Your task to perform on an android device: change notification settings in the gmail app Image 0: 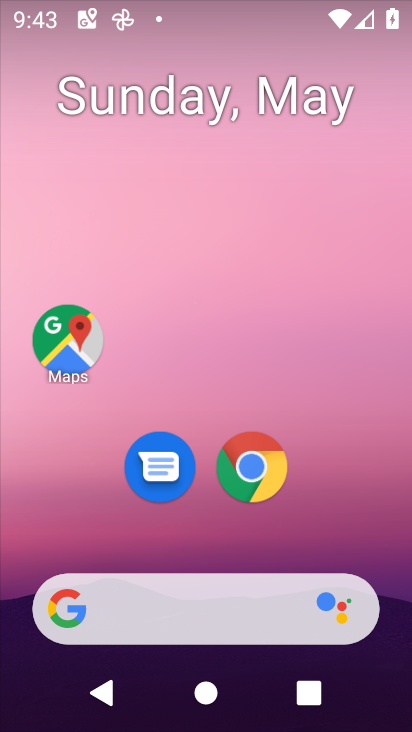
Step 0: drag from (324, 494) to (315, 128)
Your task to perform on an android device: change notification settings in the gmail app Image 1: 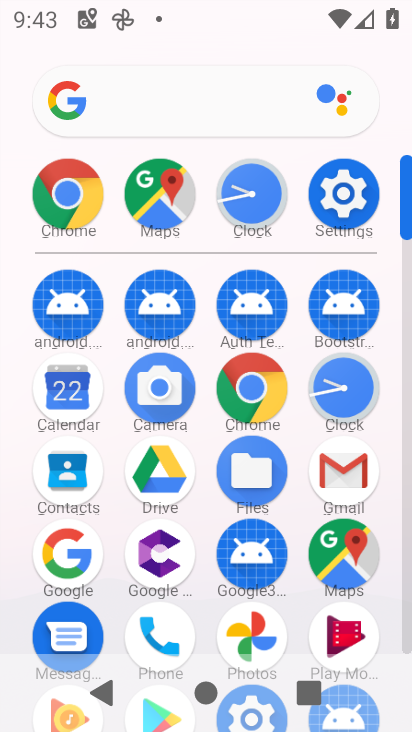
Step 1: click (345, 473)
Your task to perform on an android device: change notification settings in the gmail app Image 2: 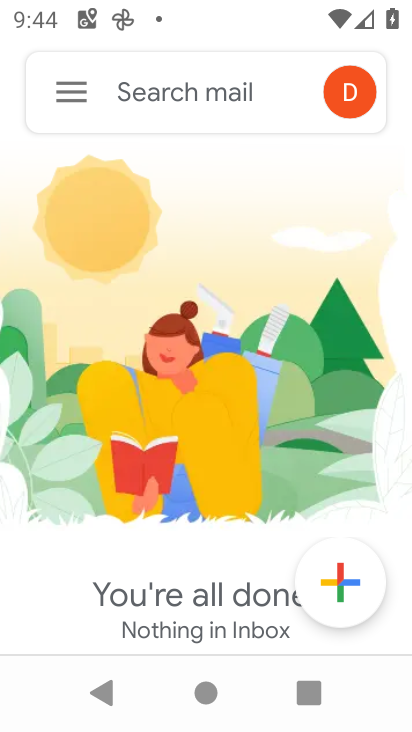
Step 2: click (70, 102)
Your task to perform on an android device: change notification settings in the gmail app Image 3: 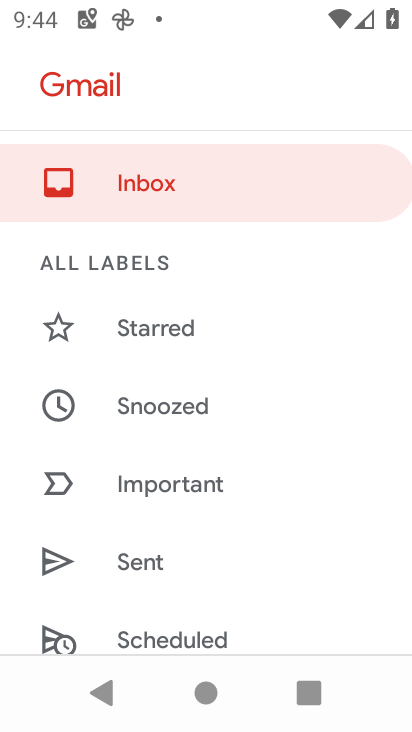
Step 3: drag from (181, 546) to (208, 264)
Your task to perform on an android device: change notification settings in the gmail app Image 4: 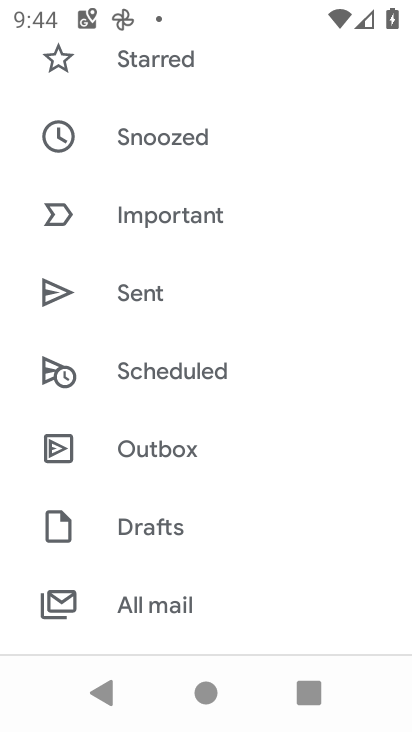
Step 4: drag from (210, 594) to (277, 245)
Your task to perform on an android device: change notification settings in the gmail app Image 5: 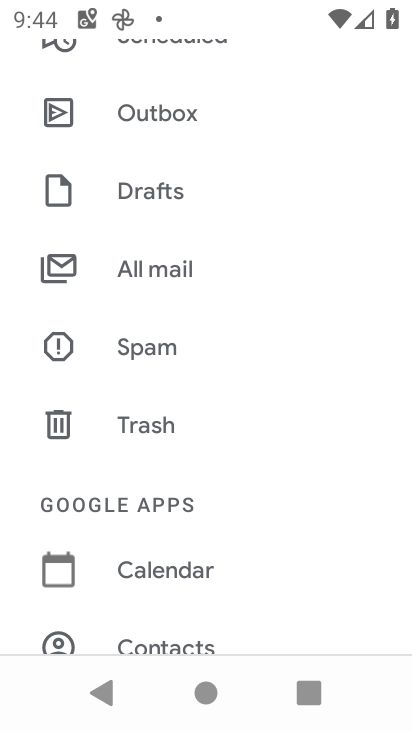
Step 5: drag from (225, 591) to (261, 283)
Your task to perform on an android device: change notification settings in the gmail app Image 6: 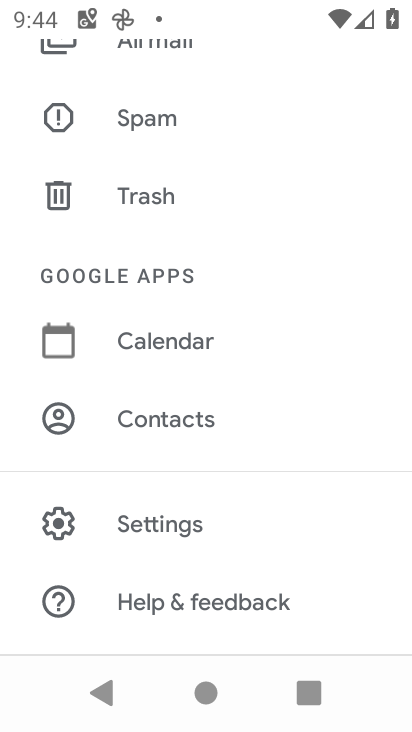
Step 6: click (177, 537)
Your task to perform on an android device: change notification settings in the gmail app Image 7: 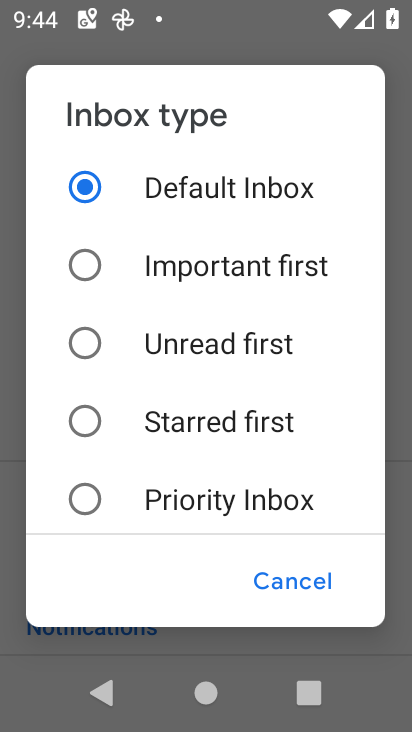
Step 7: click (270, 595)
Your task to perform on an android device: change notification settings in the gmail app Image 8: 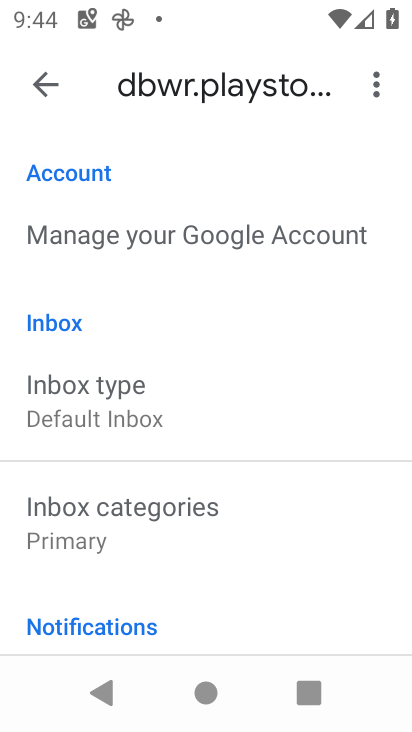
Step 8: drag from (207, 426) to (231, 353)
Your task to perform on an android device: change notification settings in the gmail app Image 9: 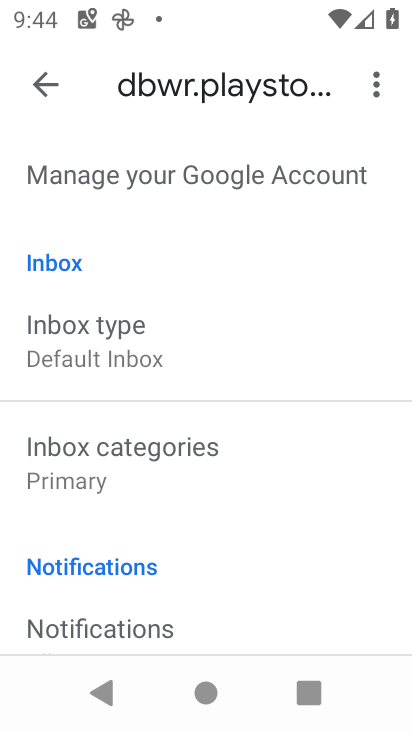
Step 9: drag from (201, 565) to (248, 305)
Your task to perform on an android device: change notification settings in the gmail app Image 10: 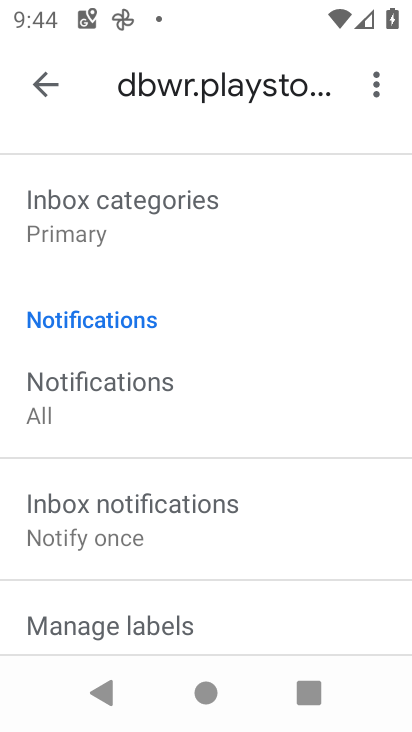
Step 10: click (71, 415)
Your task to perform on an android device: change notification settings in the gmail app Image 11: 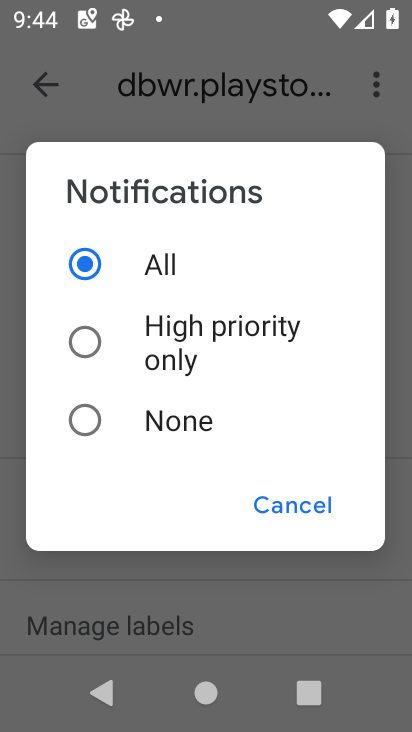
Step 11: click (92, 422)
Your task to perform on an android device: change notification settings in the gmail app Image 12: 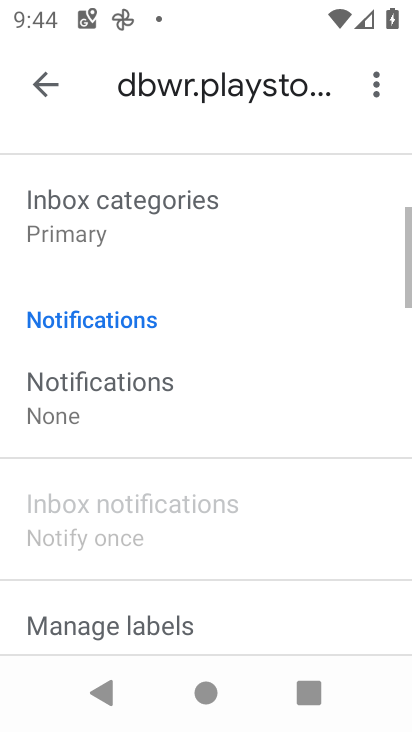
Step 12: task complete